Your task to perform on an android device: empty trash in google photos Image 0: 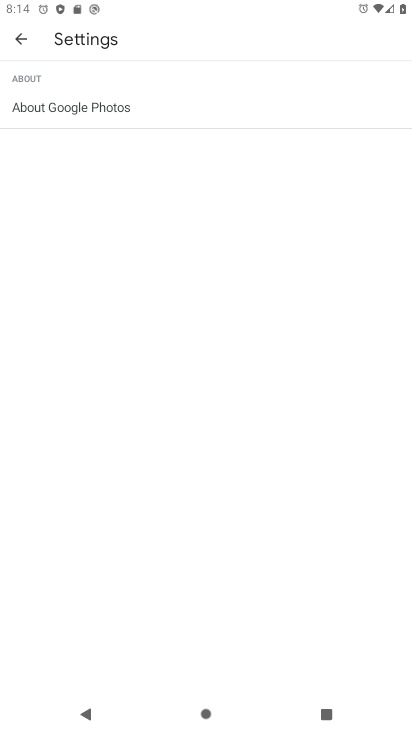
Step 0: press home button
Your task to perform on an android device: empty trash in google photos Image 1: 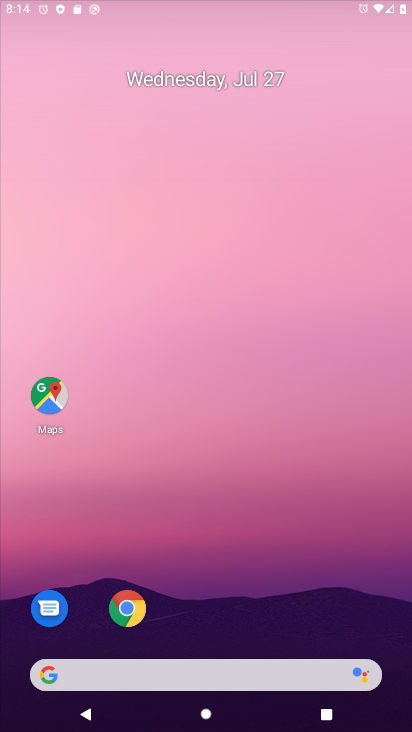
Step 1: drag from (300, 567) to (357, 205)
Your task to perform on an android device: empty trash in google photos Image 2: 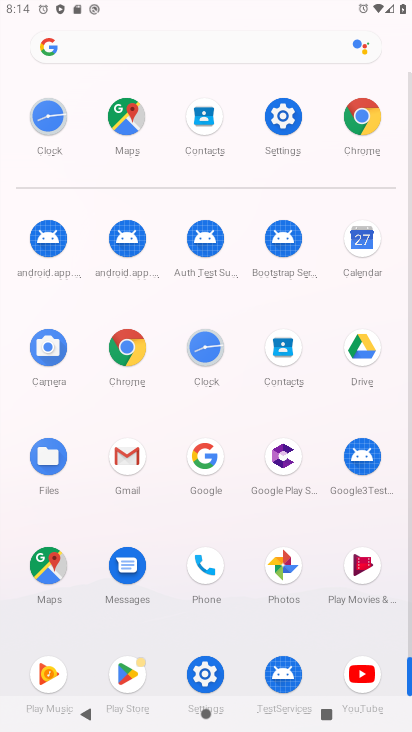
Step 2: click (296, 573)
Your task to perform on an android device: empty trash in google photos Image 3: 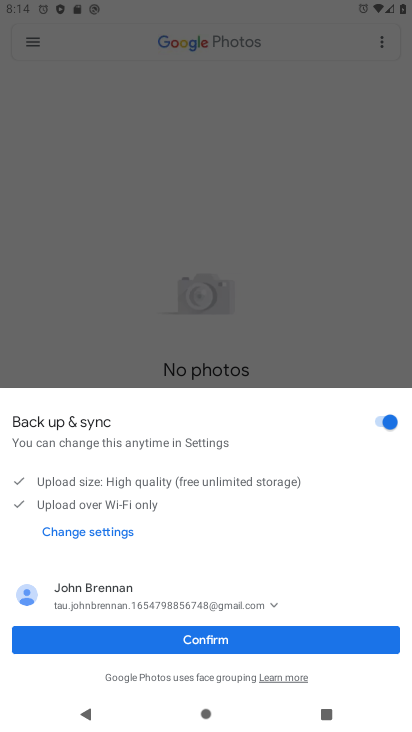
Step 3: click (219, 640)
Your task to perform on an android device: empty trash in google photos Image 4: 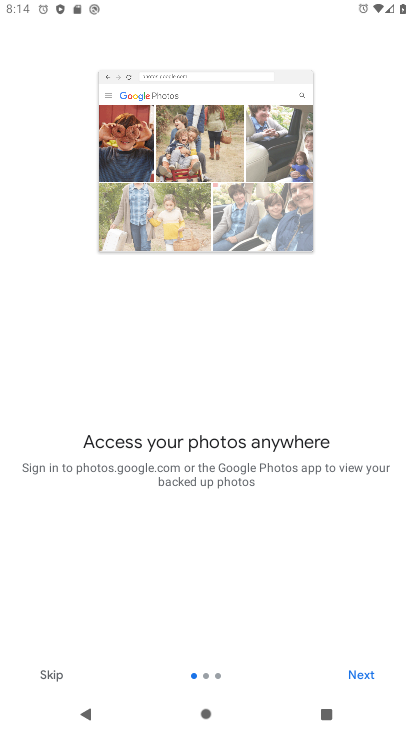
Step 4: task complete